Your task to perform on an android device: check google app version Image 0: 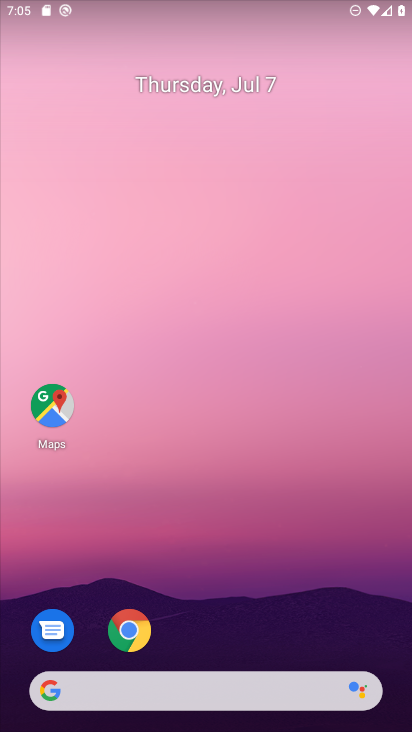
Step 0: drag from (252, 578) to (141, 52)
Your task to perform on an android device: check google app version Image 1: 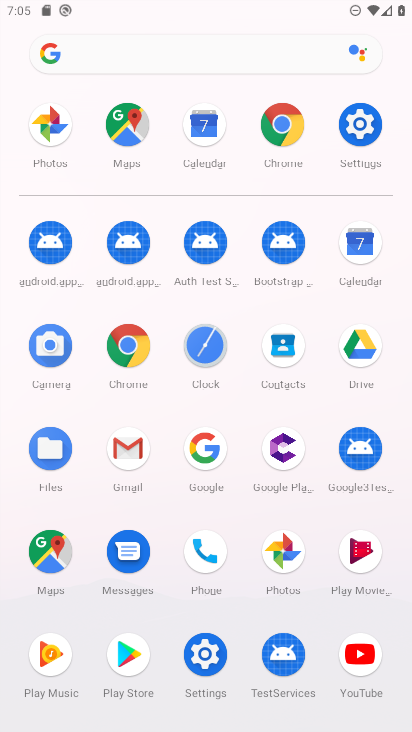
Step 1: click (206, 446)
Your task to perform on an android device: check google app version Image 2: 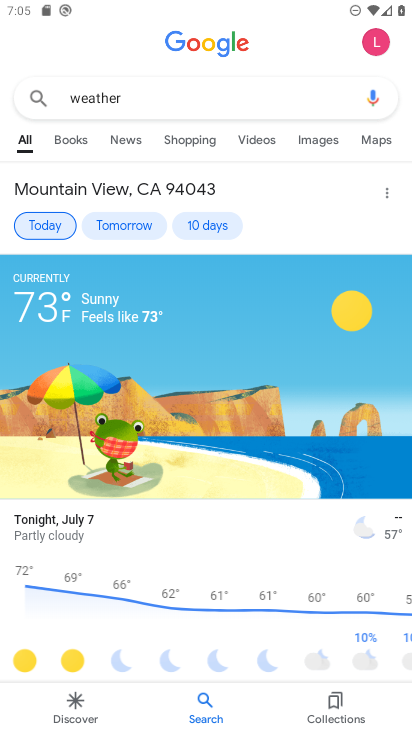
Step 2: click (379, 43)
Your task to perform on an android device: check google app version Image 3: 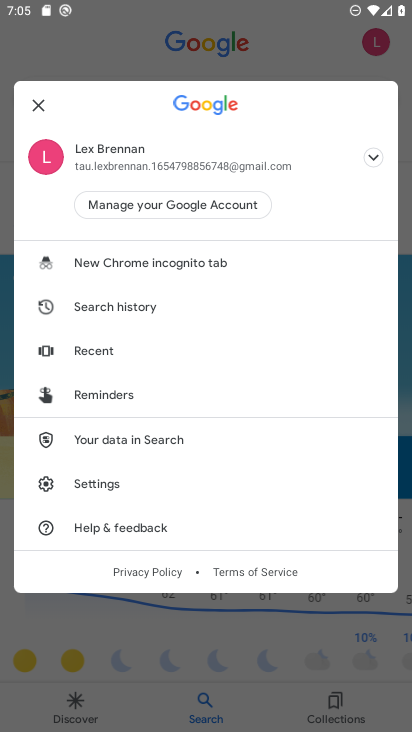
Step 3: click (93, 481)
Your task to perform on an android device: check google app version Image 4: 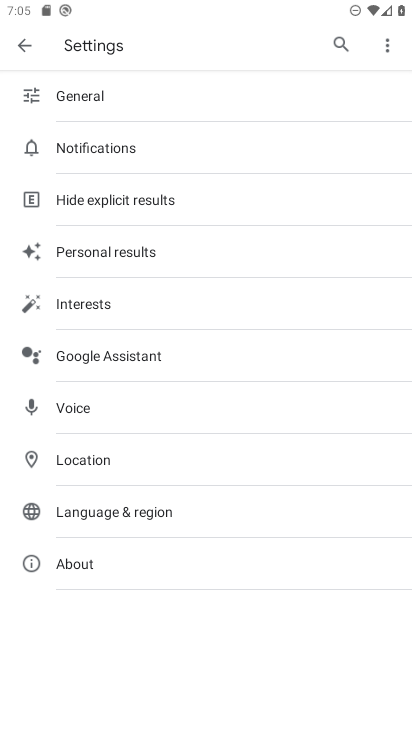
Step 4: click (71, 565)
Your task to perform on an android device: check google app version Image 5: 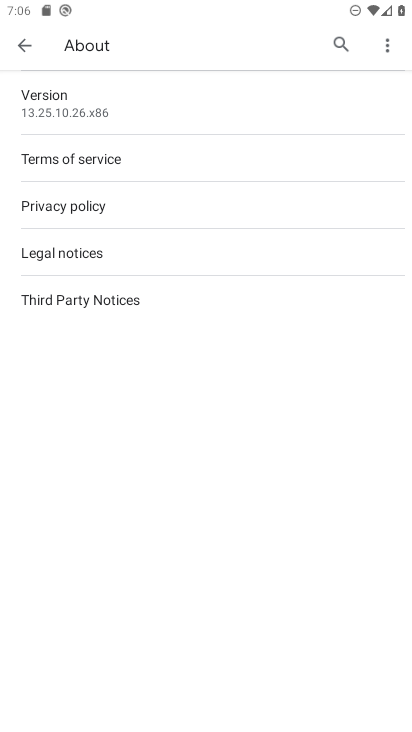
Step 5: task complete